Your task to perform on an android device: Go to location settings Image 0: 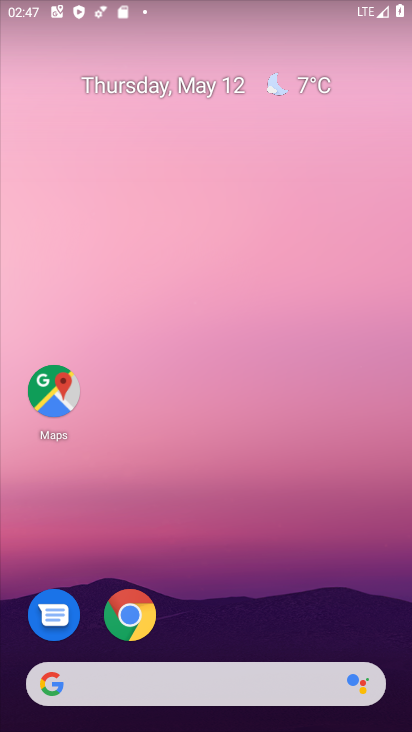
Step 0: drag from (206, 680) to (265, 415)
Your task to perform on an android device: Go to location settings Image 1: 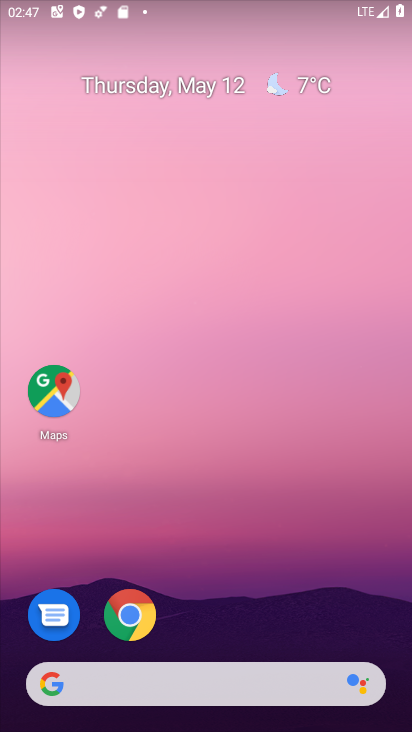
Step 1: drag from (266, 698) to (214, 347)
Your task to perform on an android device: Go to location settings Image 2: 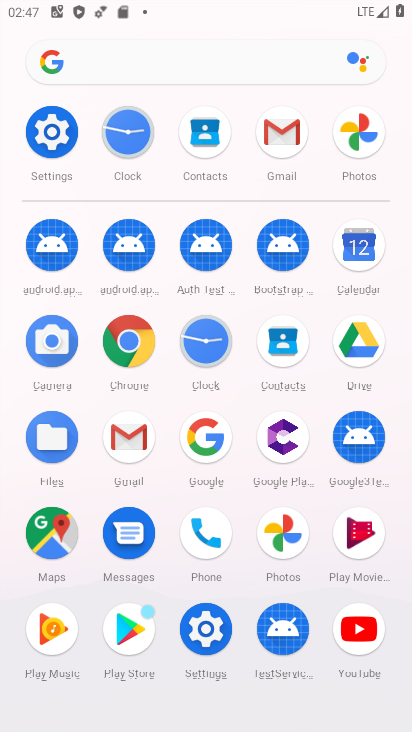
Step 2: click (52, 119)
Your task to perform on an android device: Go to location settings Image 3: 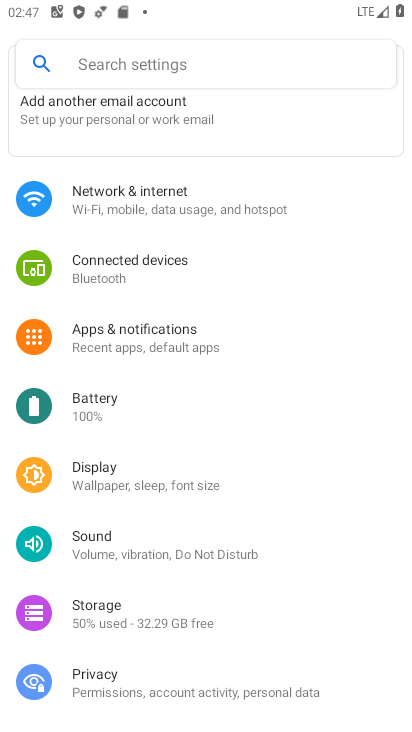
Step 3: drag from (136, 518) to (155, 208)
Your task to perform on an android device: Go to location settings Image 4: 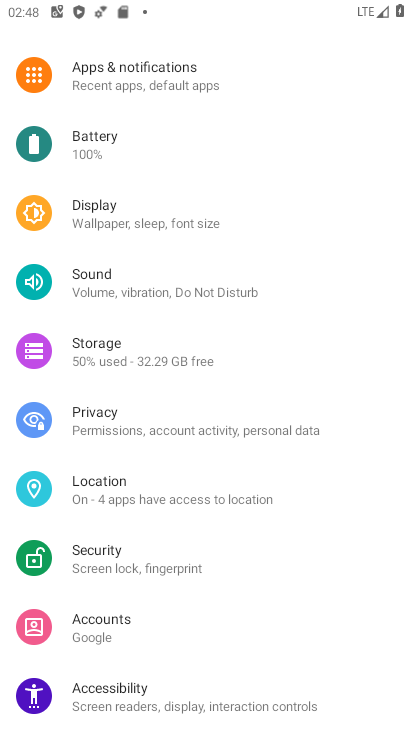
Step 4: click (118, 499)
Your task to perform on an android device: Go to location settings Image 5: 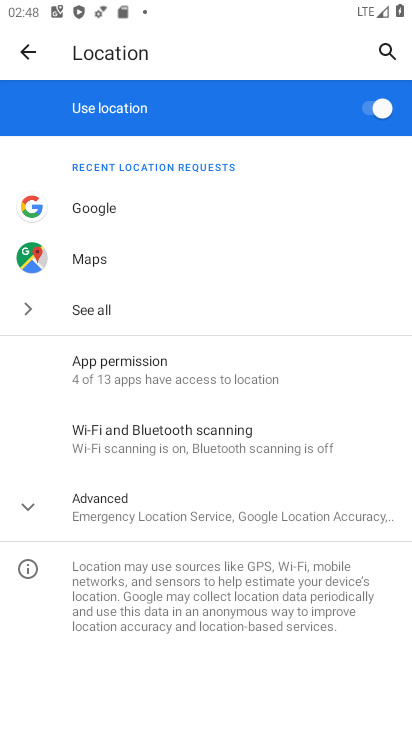
Step 5: task complete